Your task to perform on an android device: Open the calendar and show me this week's events Image 0: 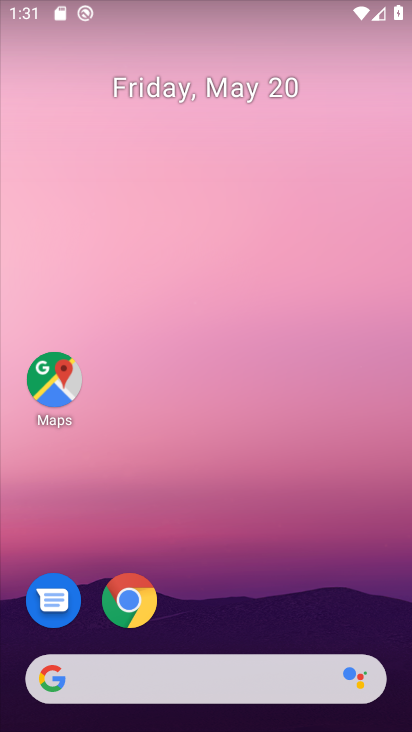
Step 0: drag from (284, 472) to (256, 110)
Your task to perform on an android device: Open the calendar and show me this week's events Image 1: 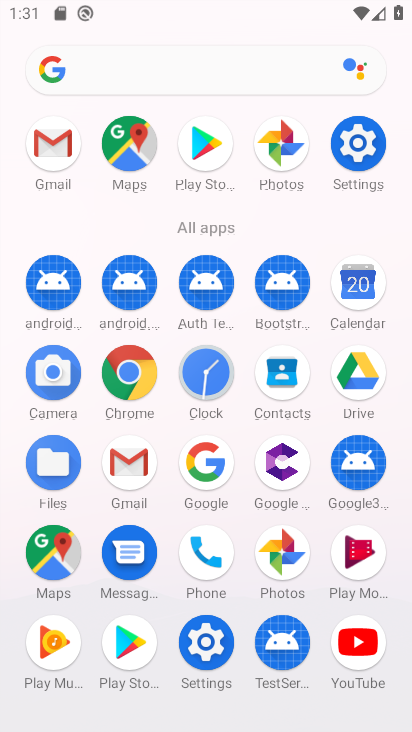
Step 1: click (354, 251)
Your task to perform on an android device: Open the calendar and show me this week's events Image 2: 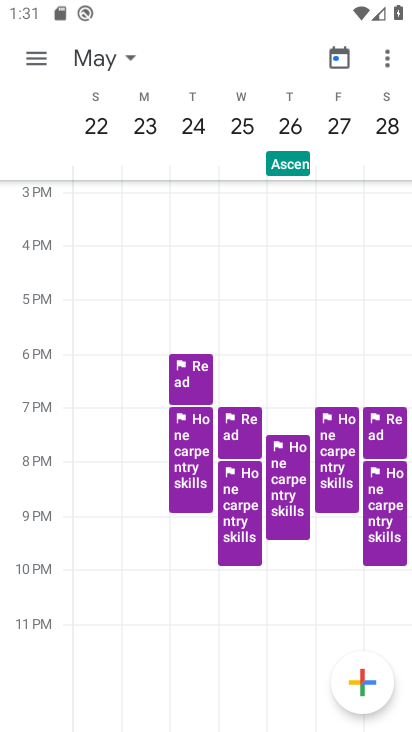
Step 2: click (135, 61)
Your task to perform on an android device: Open the calendar and show me this week's events Image 3: 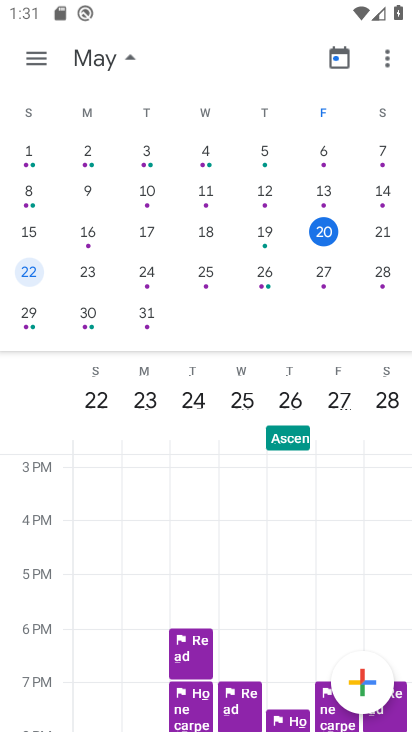
Step 3: click (39, 236)
Your task to perform on an android device: Open the calendar and show me this week's events Image 4: 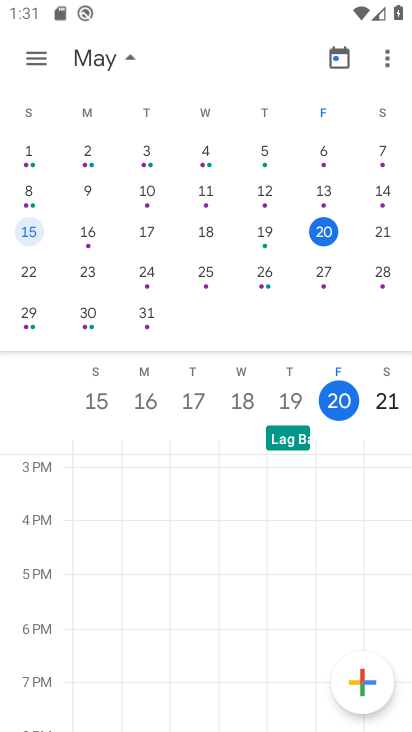
Step 4: task complete